Your task to perform on an android device: uninstall "Move to iOS" Image 0: 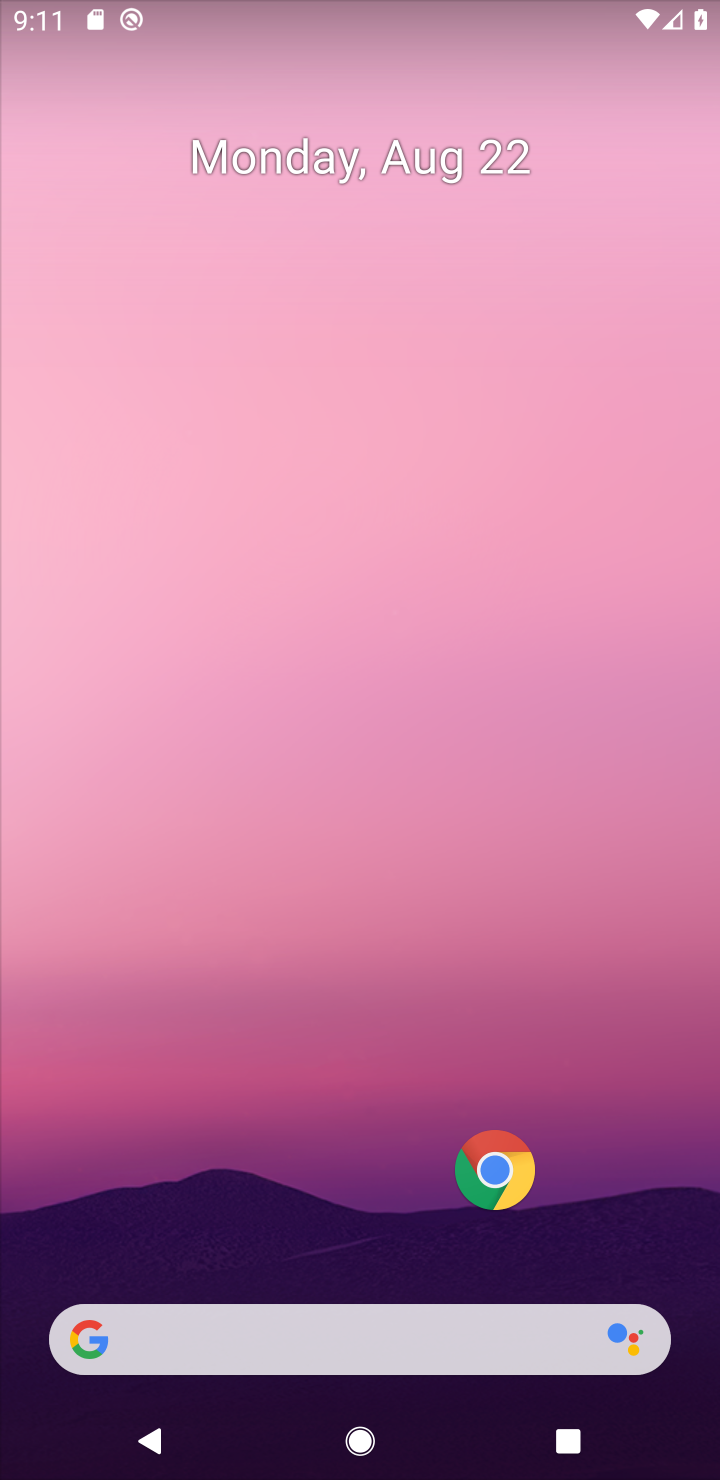
Step 0: drag from (293, 1206) to (409, 0)
Your task to perform on an android device: uninstall "Move to iOS" Image 1: 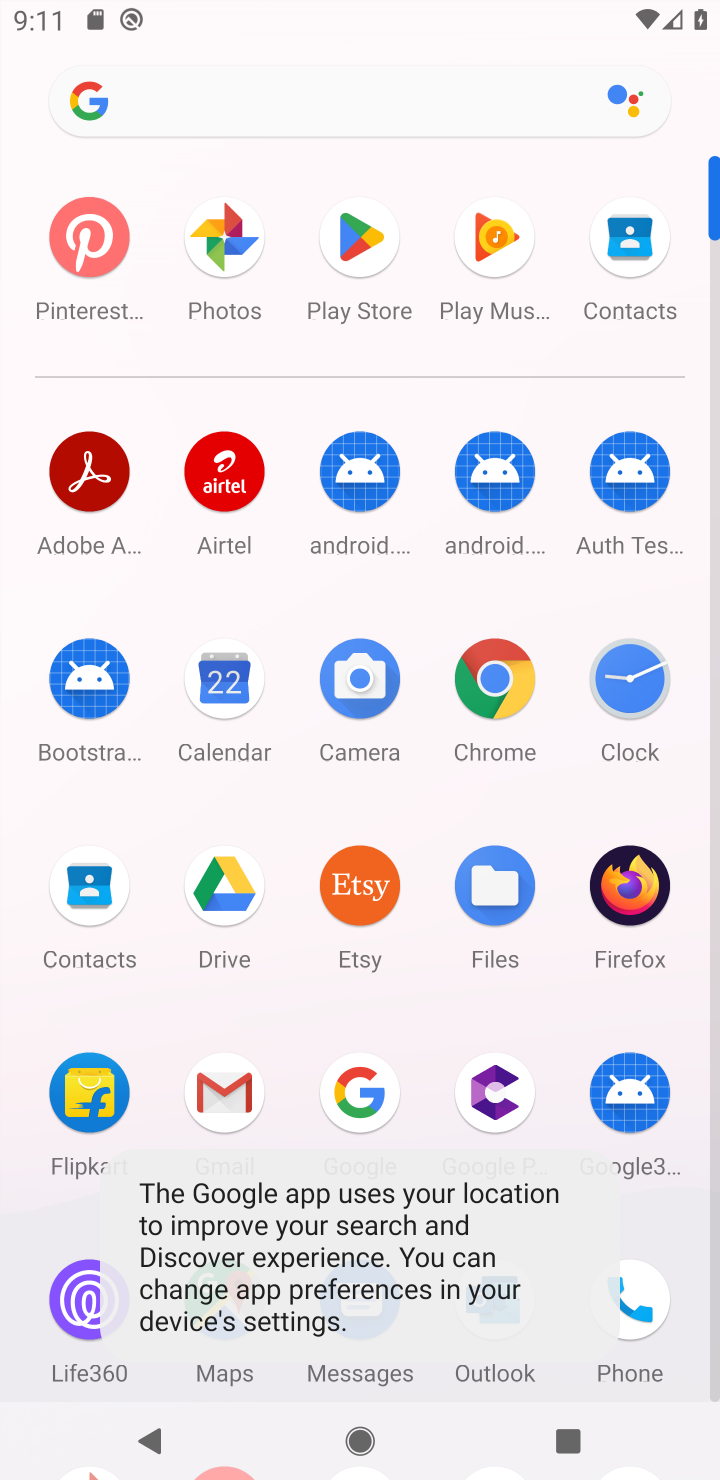
Step 1: click (350, 278)
Your task to perform on an android device: uninstall "Move to iOS" Image 2: 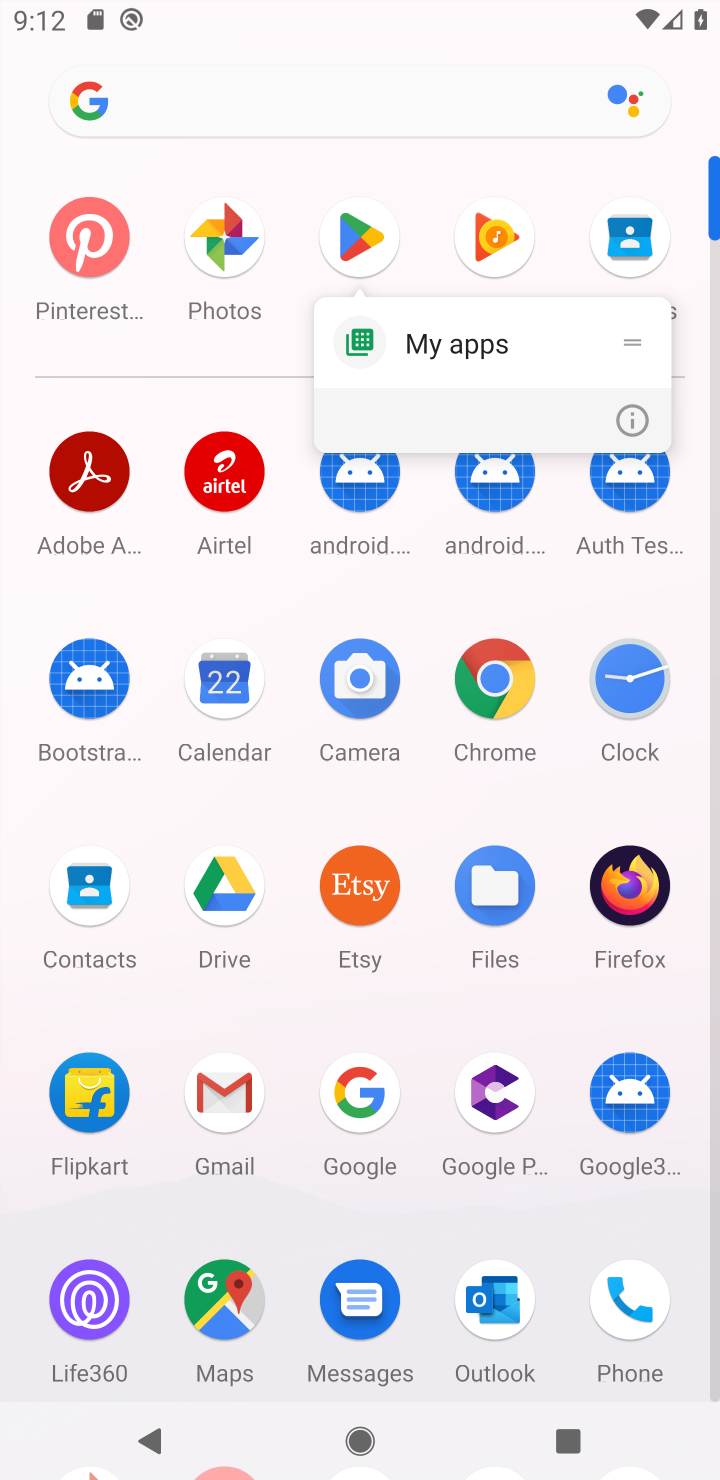
Step 2: click (323, 217)
Your task to perform on an android device: uninstall "Move to iOS" Image 3: 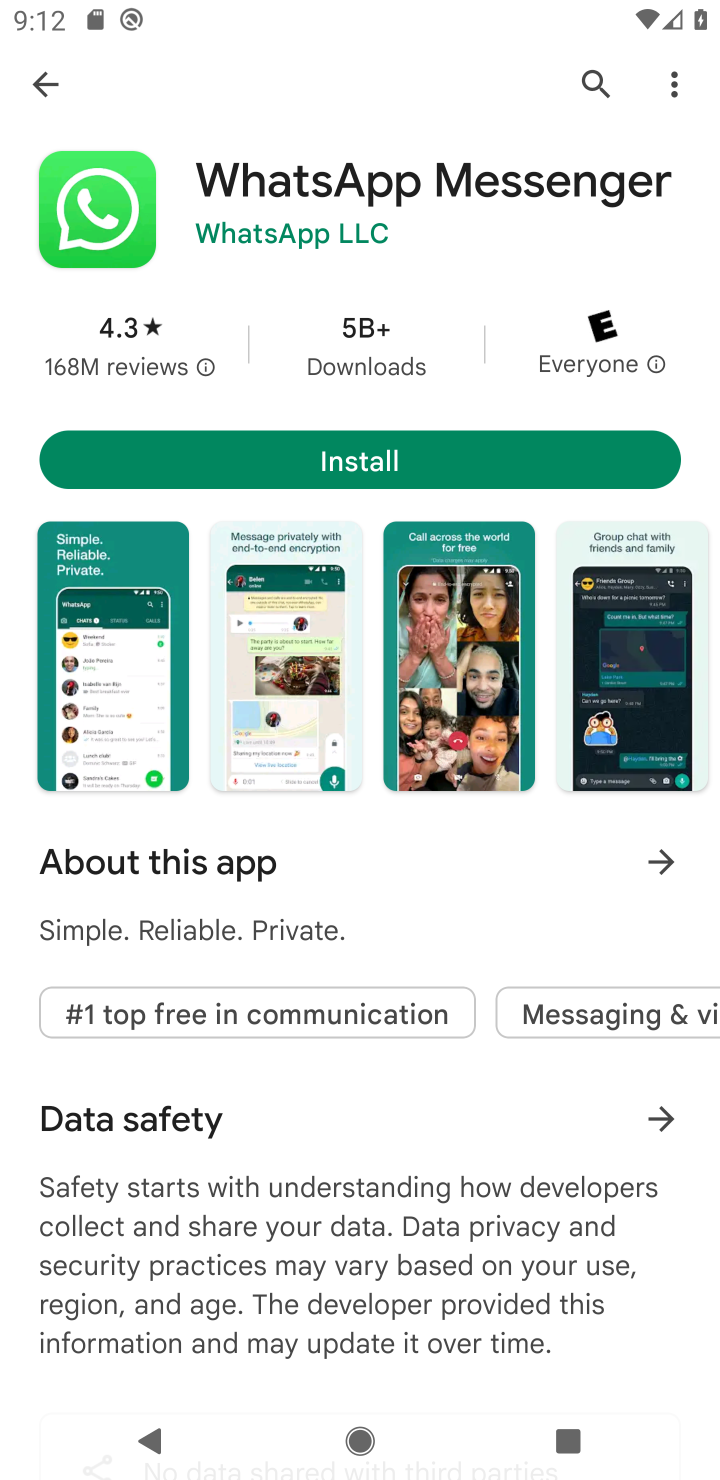
Step 3: click (588, 76)
Your task to perform on an android device: uninstall "Move to iOS" Image 4: 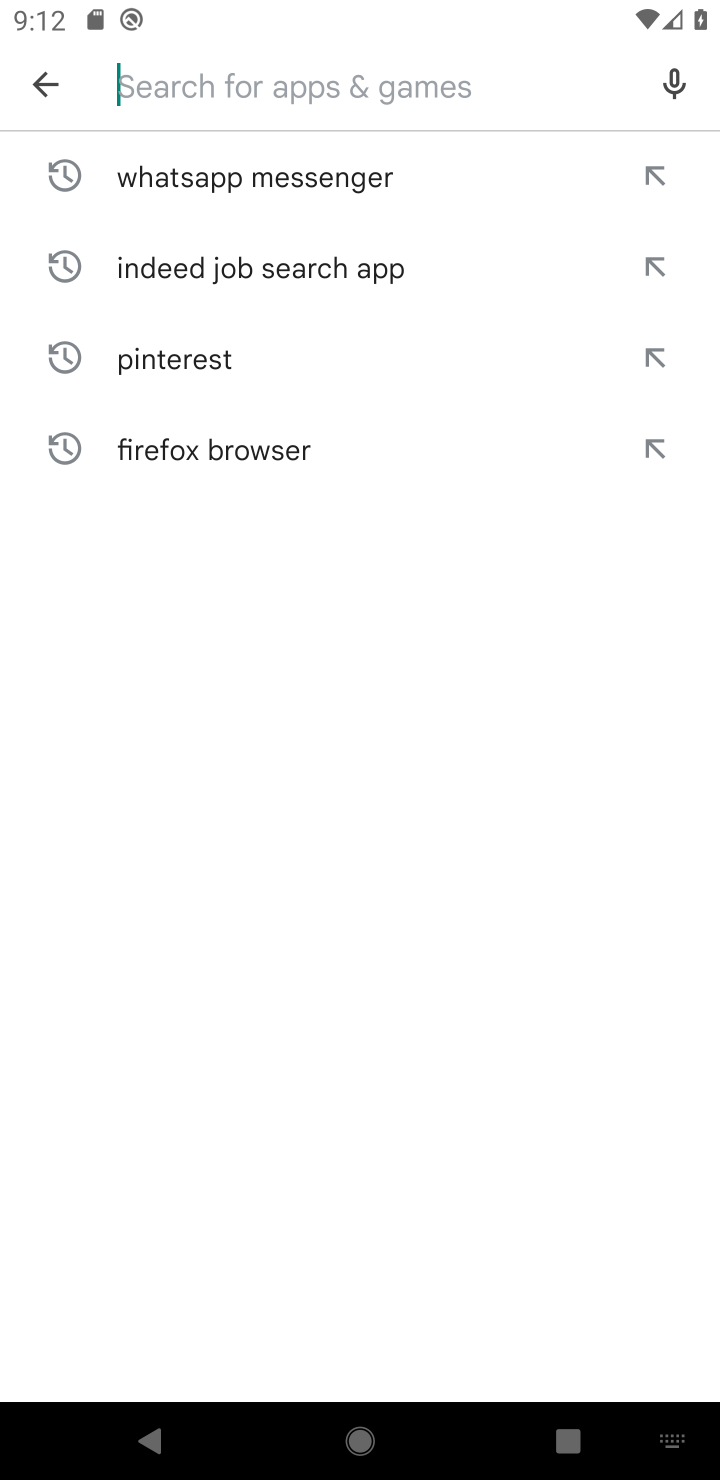
Step 4: click (350, 100)
Your task to perform on an android device: uninstall "Move to iOS" Image 5: 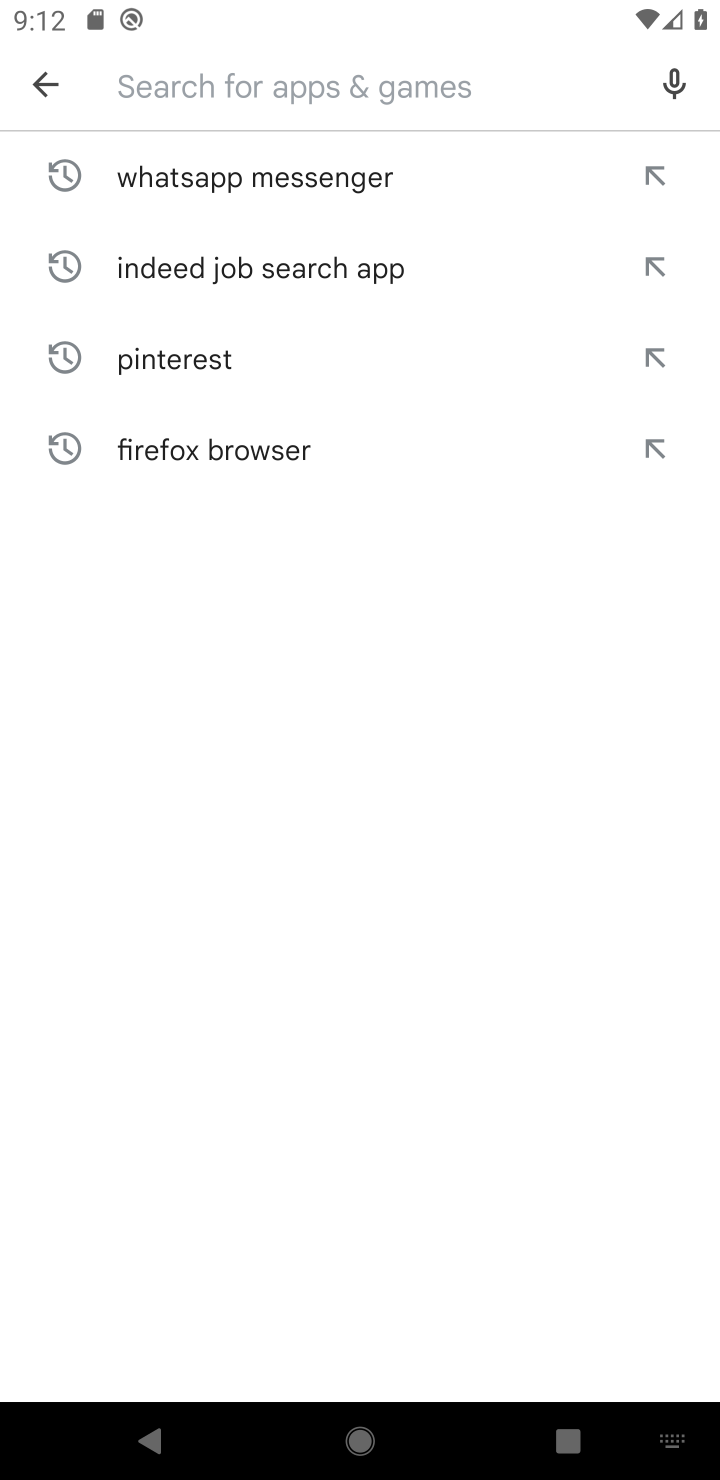
Step 5: type "ios"
Your task to perform on an android device: uninstall "Move to iOS" Image 6: 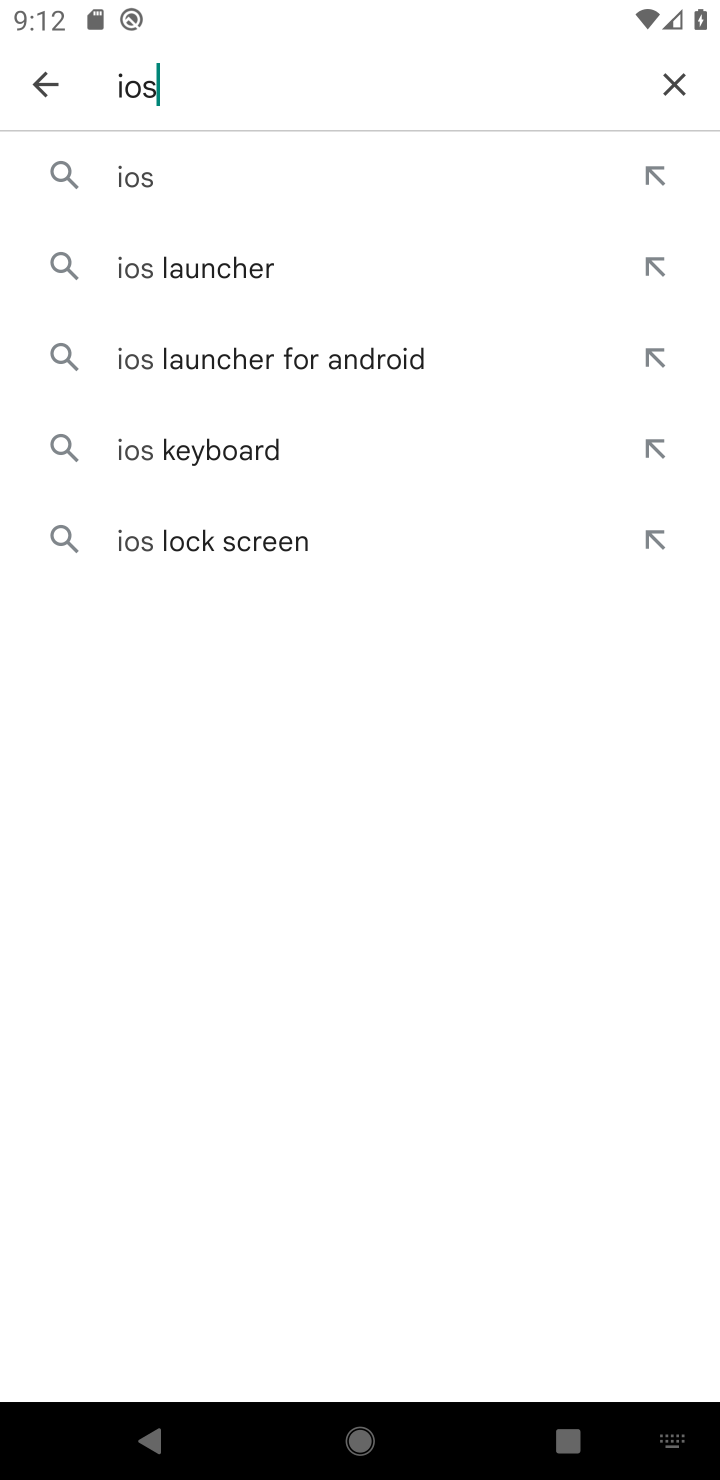
Step 6: click (164, 146)
Your task to perform on an android device: uninstall "Move to iOS" Image 7: 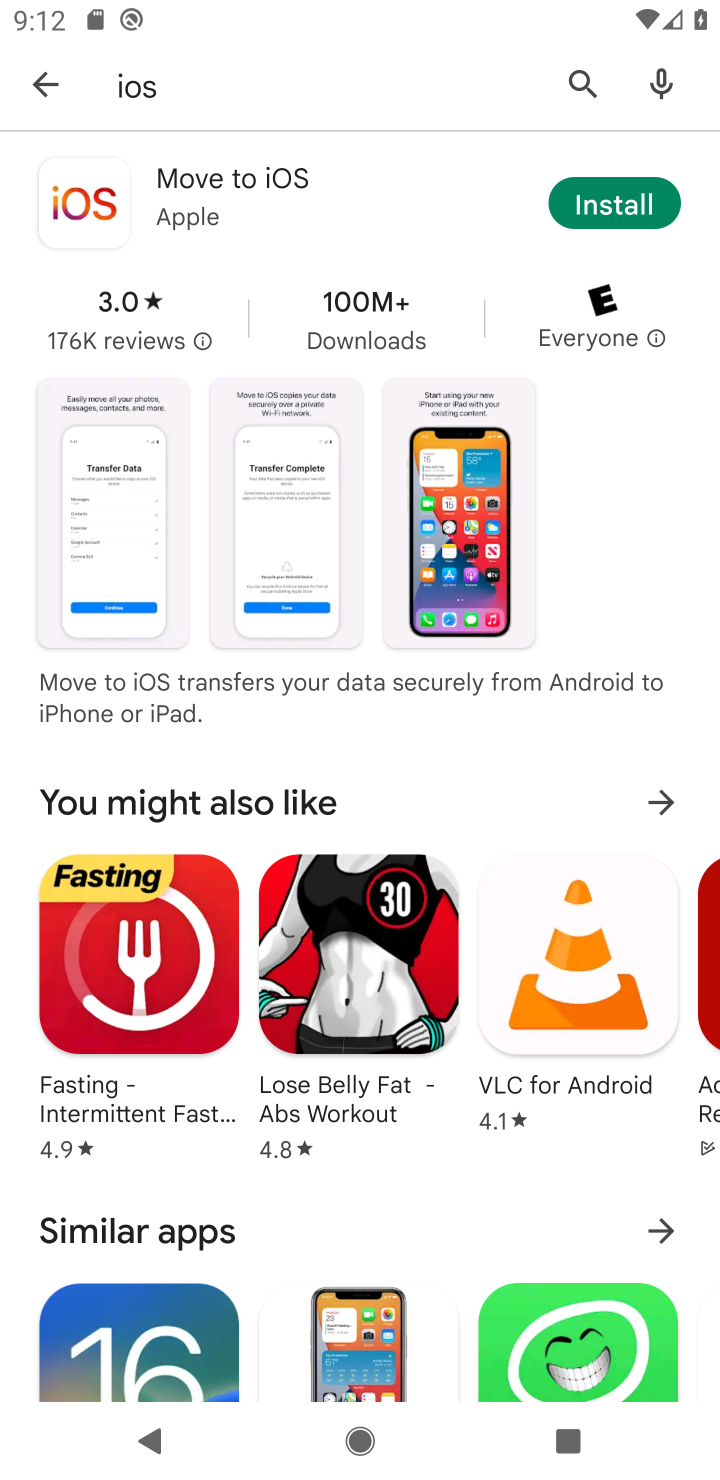
Step 7: task complete